Your task to perform on an android device: toggle improve location accuracy Image 0: 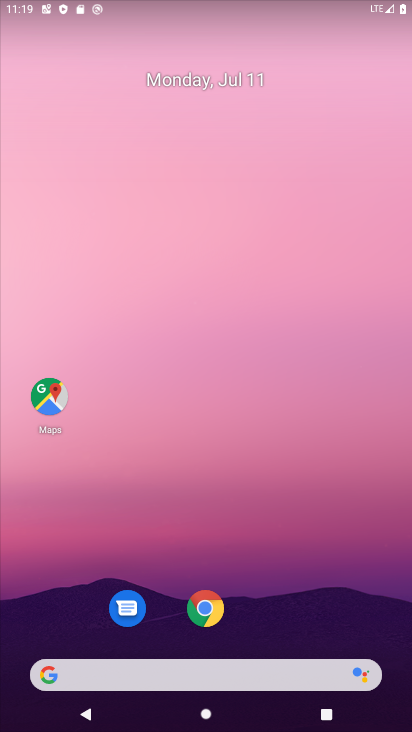
Step 0: drag from (11, 710) to (297, 1)
Your task to perform on an android device: toggle improve location accuracy Image 1: 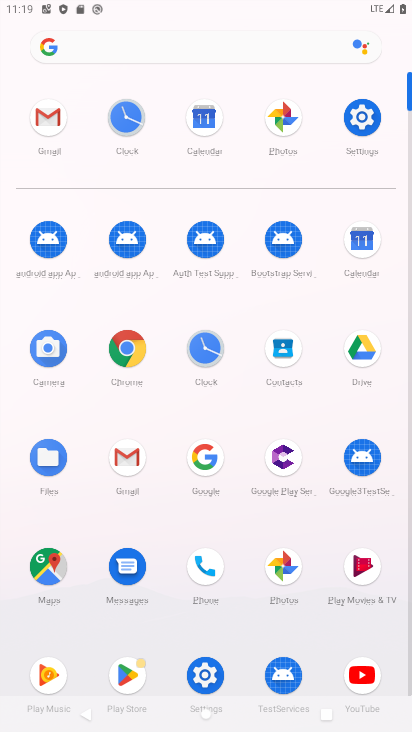
Step 1: click (203, 667)
Your task to perform on an android device: toggle improve location accuracy Image 2: 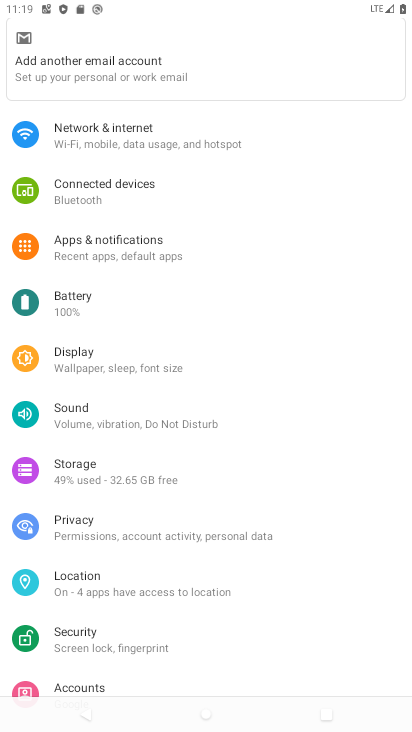
Step 2: click (118, 581)
Your task to perform on an android device: toggle improve location accuracy Image 3: 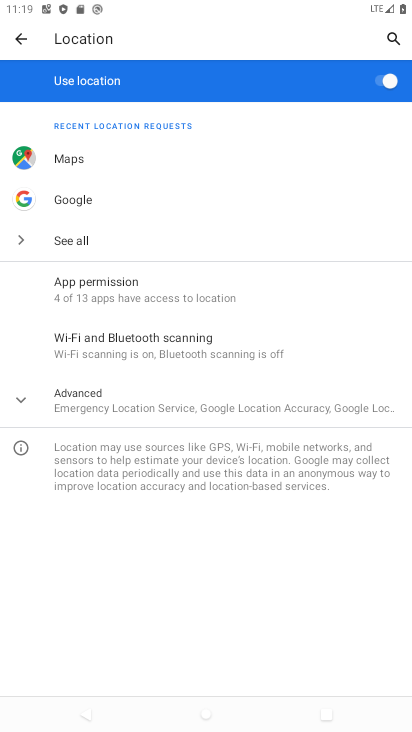
Step 3: click (119, 398)
Your task to perform on an android device: toggle improve location accuracy Image 4: 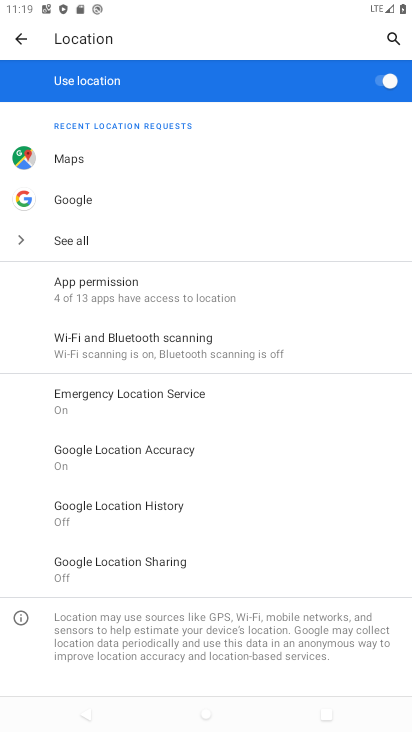
Step 4: click (135, 453)
Your task to perform on an android device: toggle improve location accuracy Image 5: 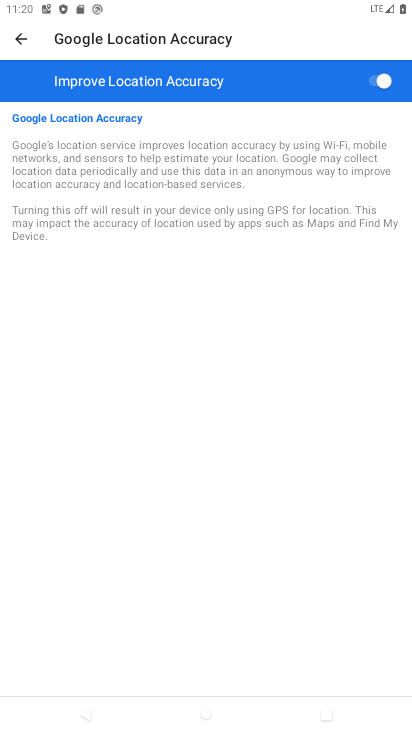
Step 5: task complete